Your task to perform on an android device: turn notification dots on Image 0: 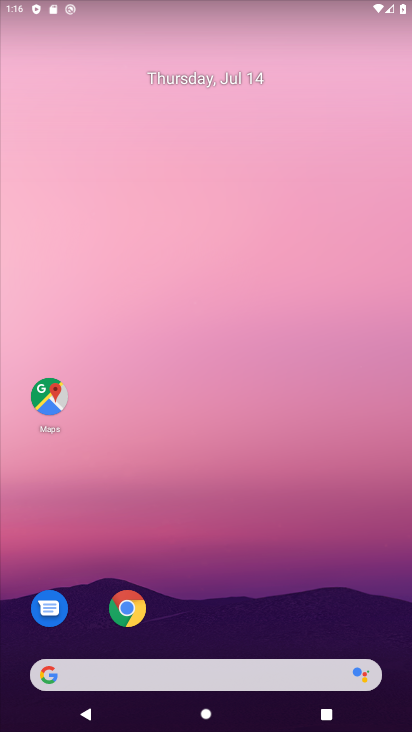
Step 0: drag from (210, 628) to (209, 65)
Your task to perform on an android device: turn notification dots on Image 1: 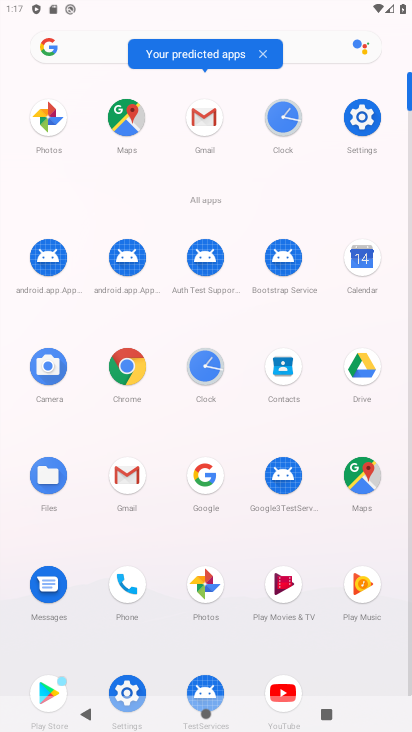
Step 1: click (119, 674)
Your task to perform on an android device: turn notification dots on Image 2: 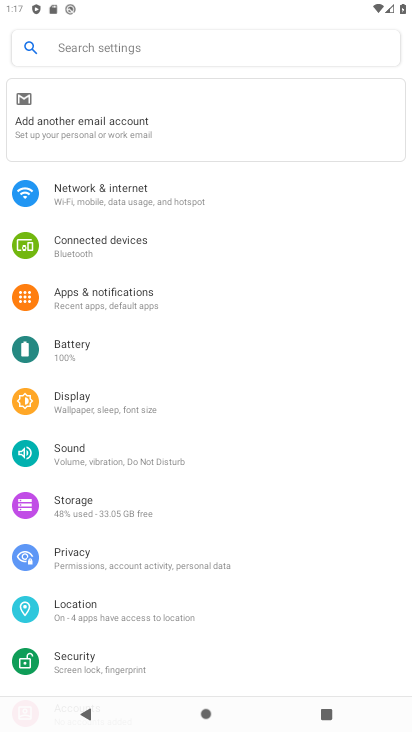
Step 2: click (148, 308)
Your task to perform on an android device: turn notification dots on Image 3: 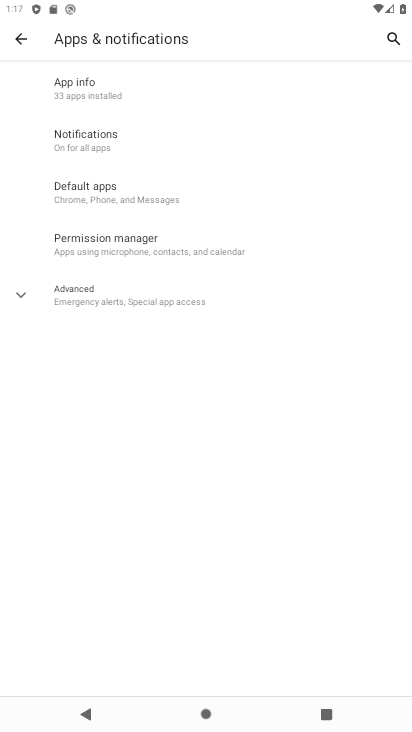
Step 3: click (108, 148)
Your task to perform on an android device: turn notification dots on Image 4: 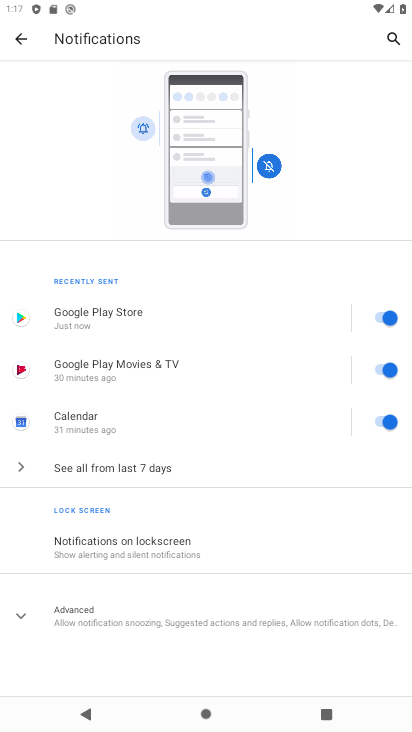
Step 4: click (185, 636)
Your task to perform on an android device: turn notification dots on Image 5: 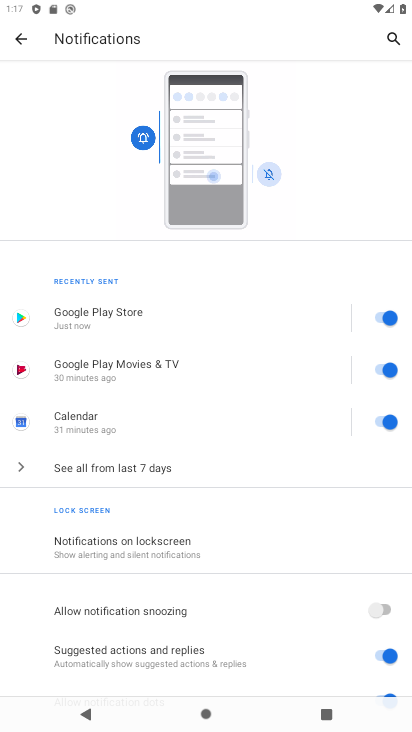
Step 5: task complete